Your task to perform on an android device: turn off notifications in google photos Image 0: 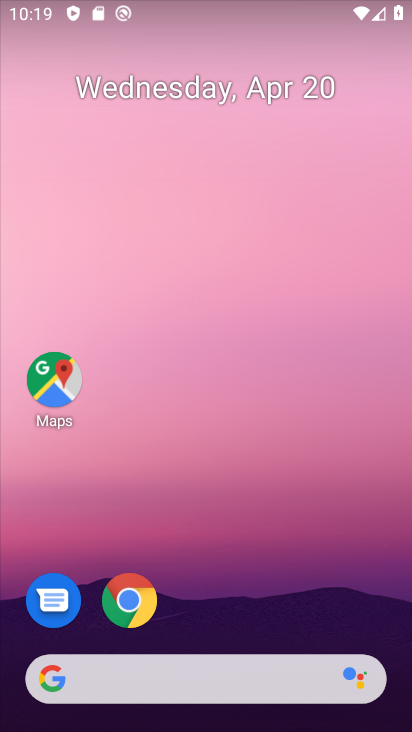
Step 0: click (330, 69)
Your task to perform on an android device: turn off notifications in google photos Image 1: 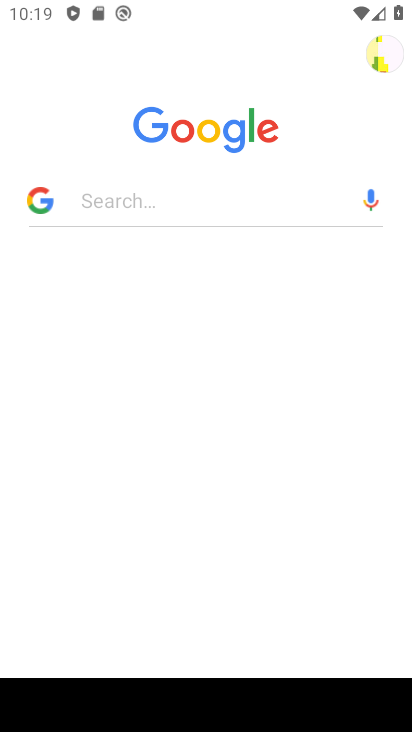
Step 1: press home button
Your task to perform on an android device: turn off notifications in google photos Image 2: 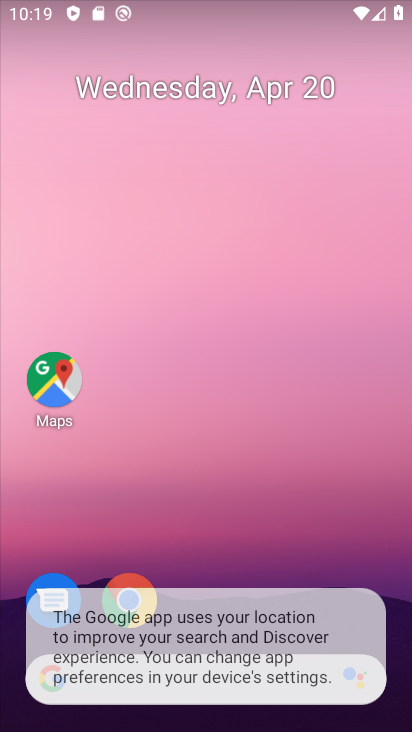
Step 2: drag from (270, 564) to (277, 121)
Your task to perform on an android device: turn off notifications in google photos Image 3: 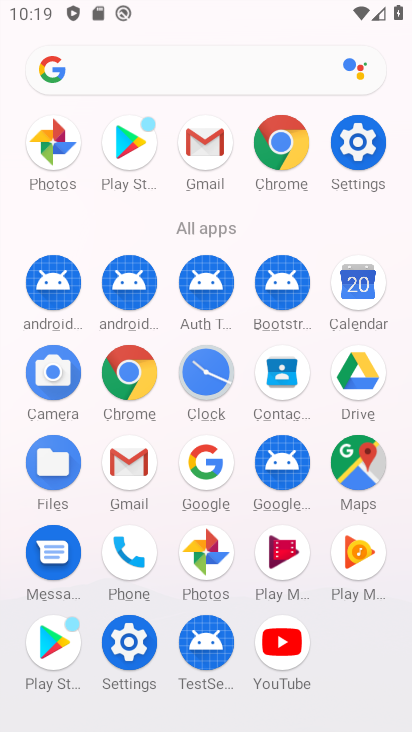
Step 3: click (207, 553)
Your task to perform on an android device: turn off notifications in google photos Image 4: 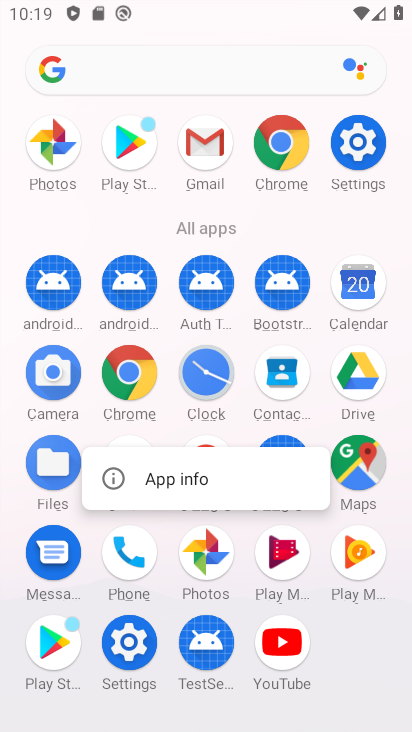
Step 4: click (207, 553)
Your task to perform on an android device: turn off notifications in google photos Image 5: 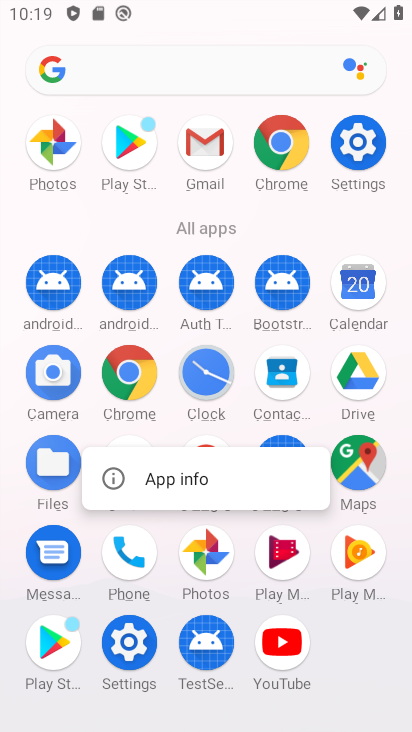
Step 5: click (207, 553)
Your task to perform on an android device: turn off notifications in google photos Image 6: 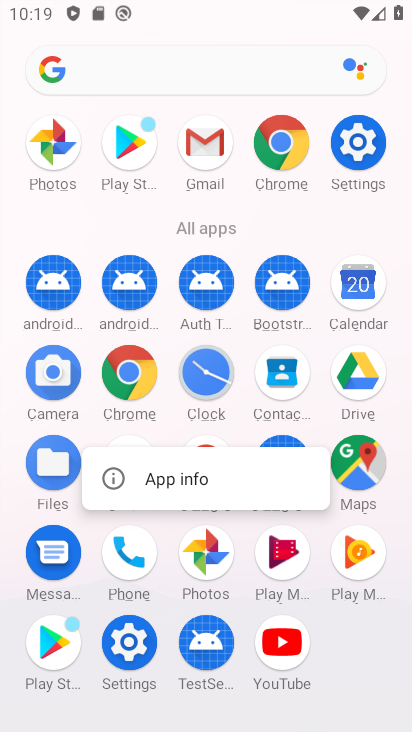
Step 6: click (207, 550)
Your task to perform on an android device: turn off notifications in google photos Image 7: 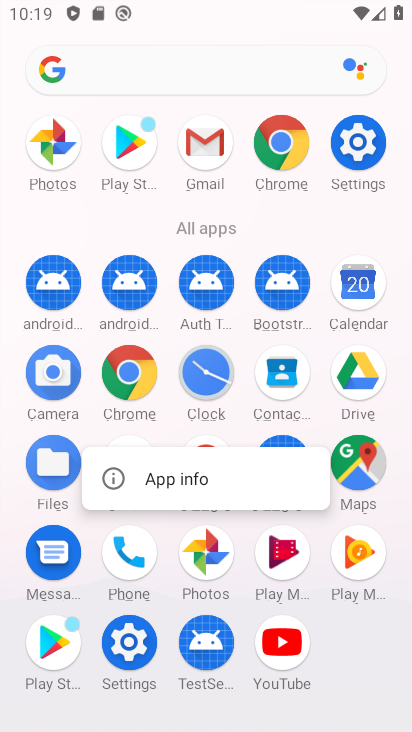
Step 7: click (351, 614)
Your task to perform on an android device: turn off notifications in google photos Image 8: 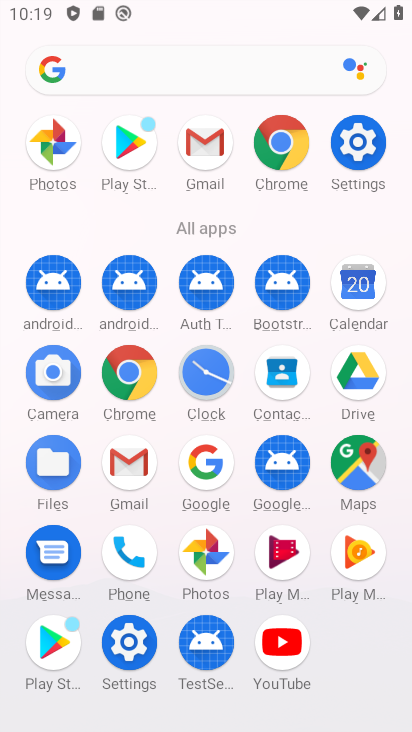
Step 8: click (203, 559)
Your task to perform on an android device: turn off notifications in google photos Image 9: 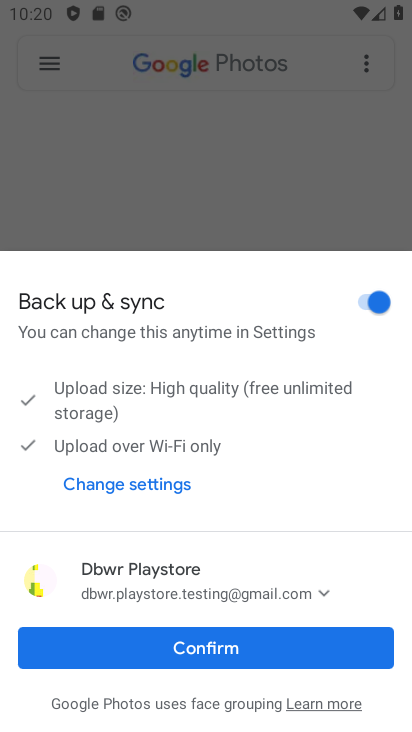
Step 9: click (96, 623)
Your task to perform on an android device: turn off notifications in google photos Image 10: 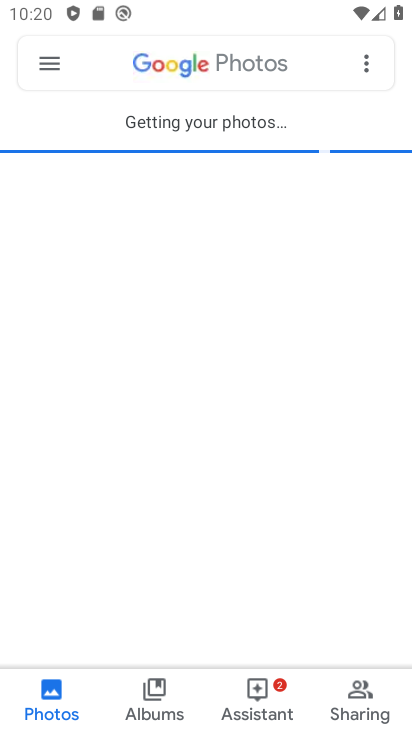
Step 10: click (50, 66)
Your task to perform on an android device: turn off notifications in google photos Image 11: 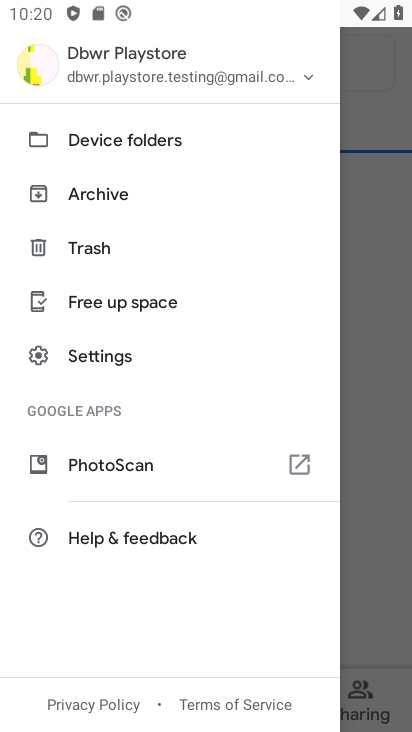
Step 11: drag from (98, 500) to (187, 208)
Your task to perform on an android device: turn off notifications in google photos Image 12: 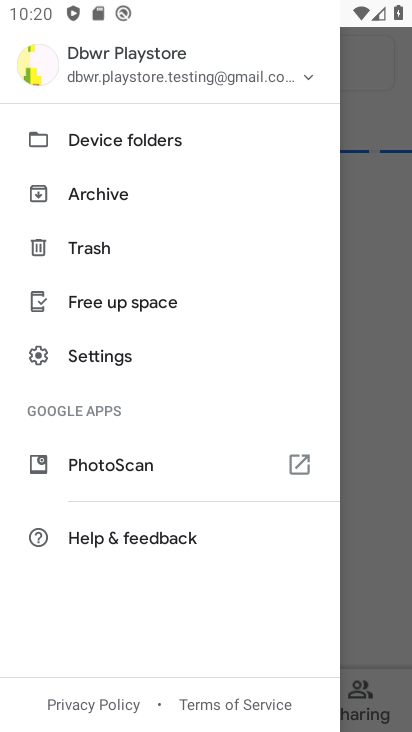
Step 12: click (105, 354)
Your task to perform on an android device: turn off notifications in google photos Image 13: 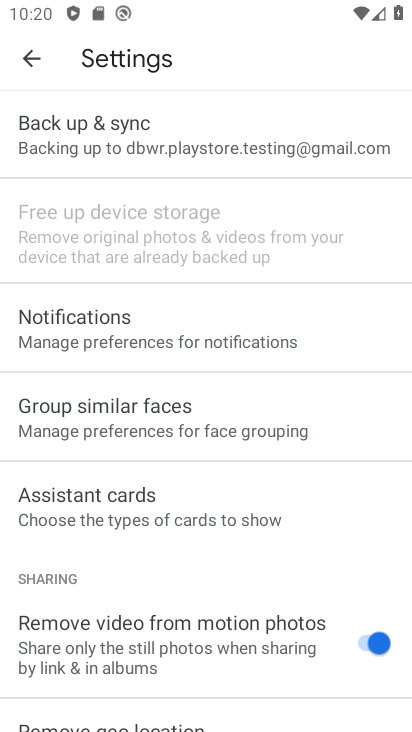
Step 13: click (162, 321)
Your task to perform on an android device: turn off notifications in google photos Image 14: 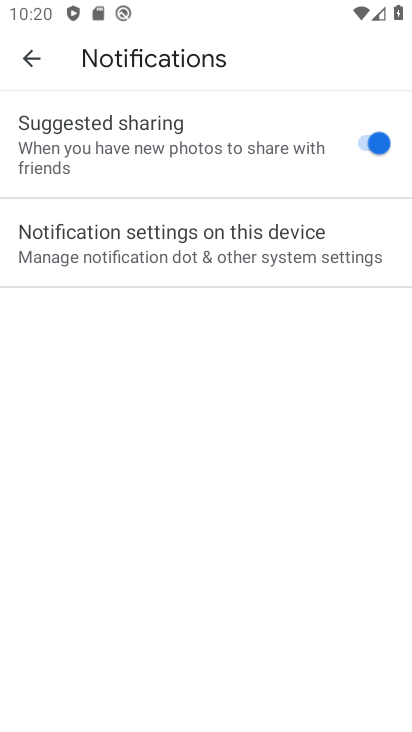
Step 14: click (186, 266)
Your task to perform on an android device: turn off notifications in google photos Image 15: 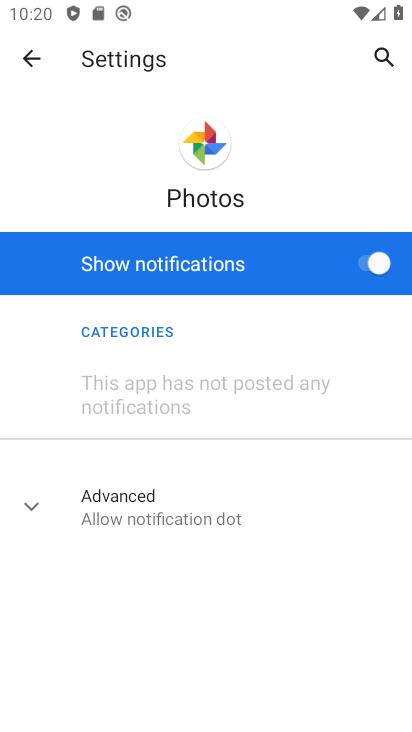
Step 15: click (186, 266)
Your task to perform on an android device: turn off notifications in google photos Image 16: 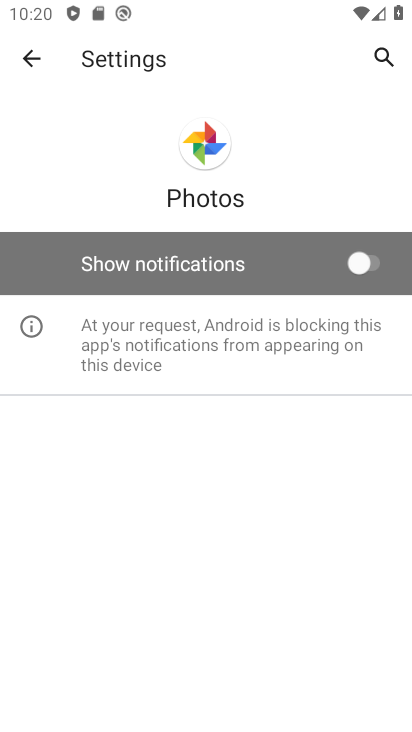
Step 16: task complete